Your task to perform on an android device: View the shopping cart on walmart. Search for "apple airpods" on walmart, select the first entry, and add it to the cart. Image 0: 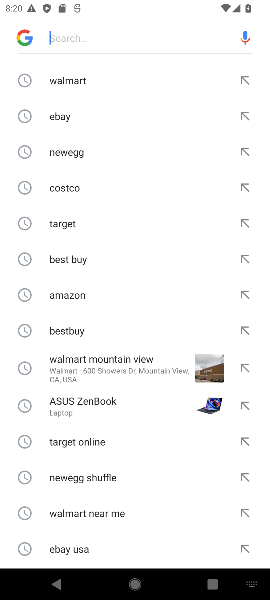
Step 0: type "walmart"
Your task to perform on an android device: View the shopping cart on walmart. Search for "apple airpods" on walmart, select the first entry, and add it to the cart. Image 1: 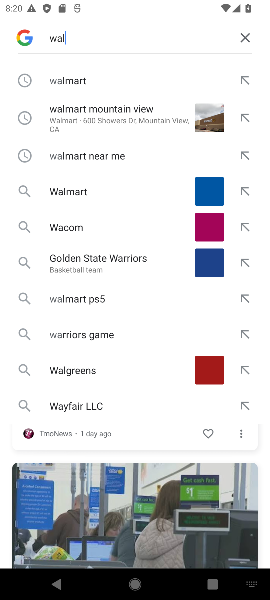
Step 1: press enter
Your task to perform on an android device: View the shopping cart on walmart. Search for "apple airpods" on walmart, select the first entry, and add it to the cart. Image 2: 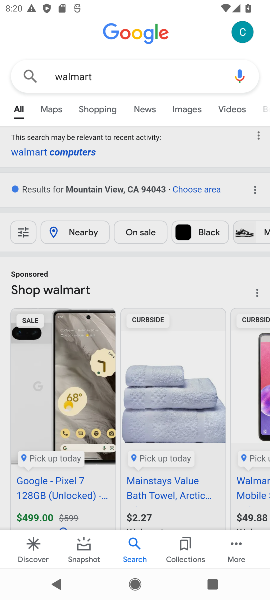
Step 2: drag from (135, 435) to (134, 153)
Your task to perform on an android device: View the shopping cart on walmart. Search for "apple airpods" on walmart, select the first entry, and add it to the cart. Image 3: 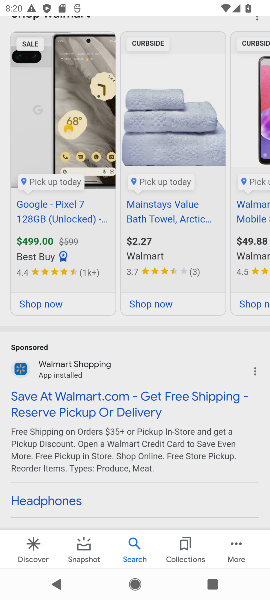
Step 3: click (119, 408)
Your task to perform on an android device: View the shopping cart on walmart. Search for "apple airpods" on walmart, select the first entry, and add it to the cart. Image 4: 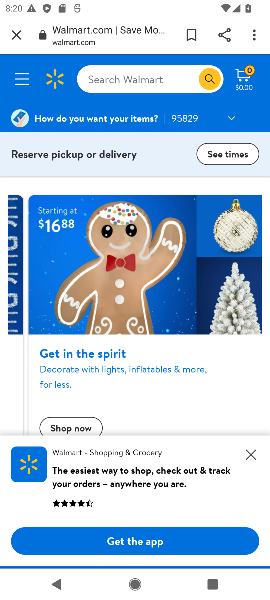
Step 4: click (242, 73)
Your task to perform on an android device: View the shopping cart on walmart. Search for "apple airpods" on walmart, select the first entry, and add it to the cart. Image 5: 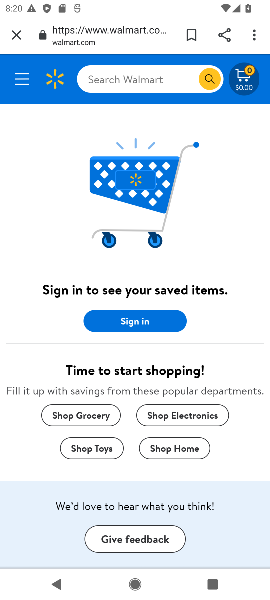
Step 5: click (98, 72)
Your task to perform on an android device: View the shopping cart on walmart. Search for "apple airpods" on walmart, select the first entry, and add it to the cart. Image 6: 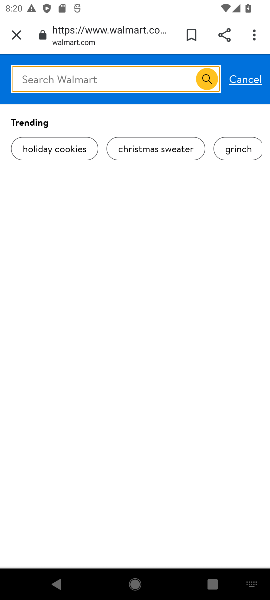
Step 6: type "apple airpods"
Your task to perform on an android device: View the shopping cart on walmart. Search for "apple airpods" on walmart, select the first entry, and add it to the cart. Image 7: 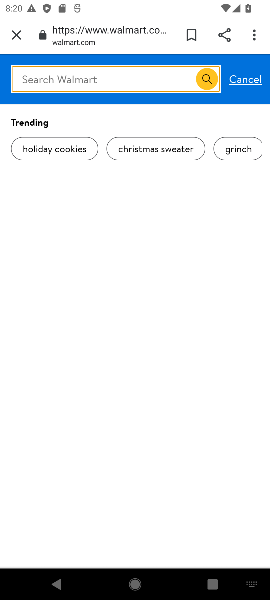
Step 7: press enter
Your task to perform on an android device: View the shopping cart on walmart. Search for "apple airpods" on walmart, select the first entry, and add it to the cart. Image 8: 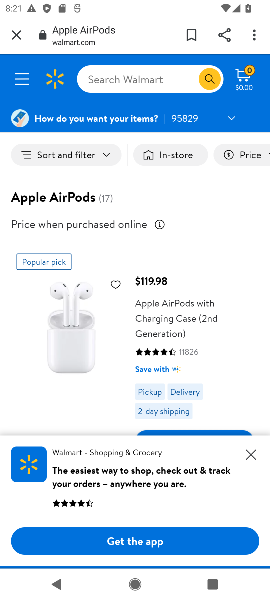
Step 8: drag from (190, 384) to (180, 227)
Your task to perform on an android device: View the shopping cart on walmart. Search for "apple airpods" on walmart, select the first entry, and add it to the cart. Image 9: 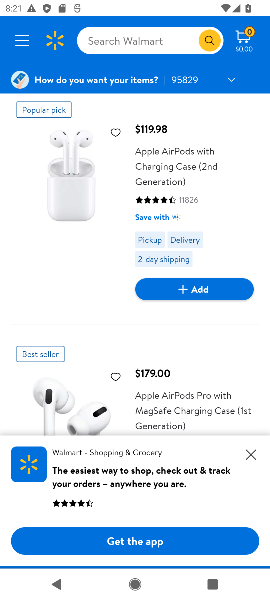
Step 9: click (187, 288)
Your task to perform on an android device: View the shopping cart on walmart. Search for "apple airpods" on walmart, select the first entry, and add it to the cart. Image 10: 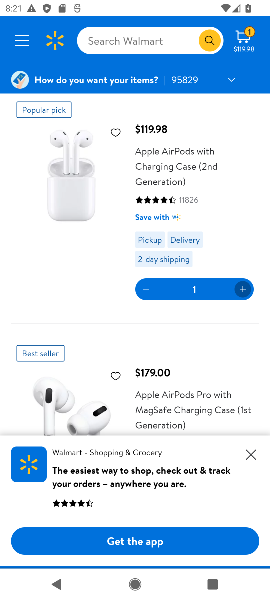
Step 10: task complete